Your task to perform on an android device: turn off notifications settings in the gmail app Image 0: 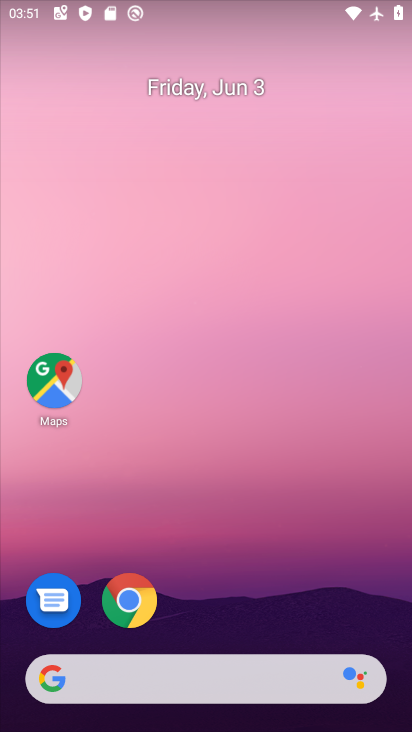
Step 0: click (129, 612)
Your task to perform on an android device: turn off notifications settings in the gmail app Image 1: 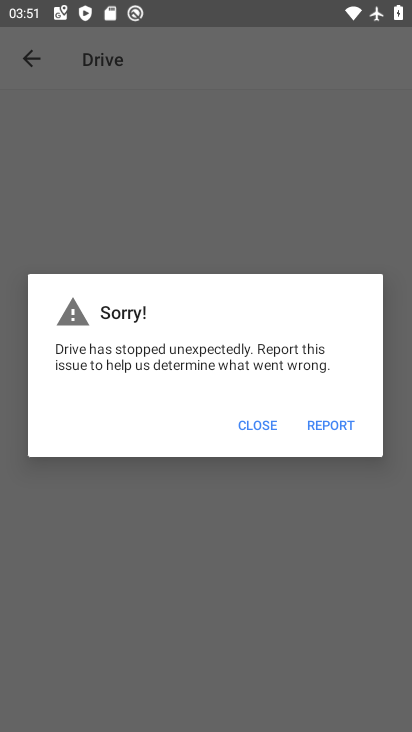
Step 1: press home button
Your task to perform on an android device: turn off notifications settings in the gmail app Image 2: 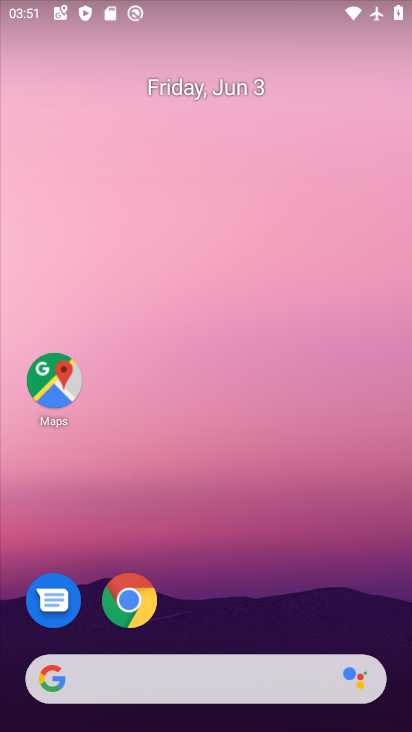
Step 2: drag from (227, 528) to (259, 1)
Your task to perform on an android device: turn off notifications settings in the gmail app Image 3: 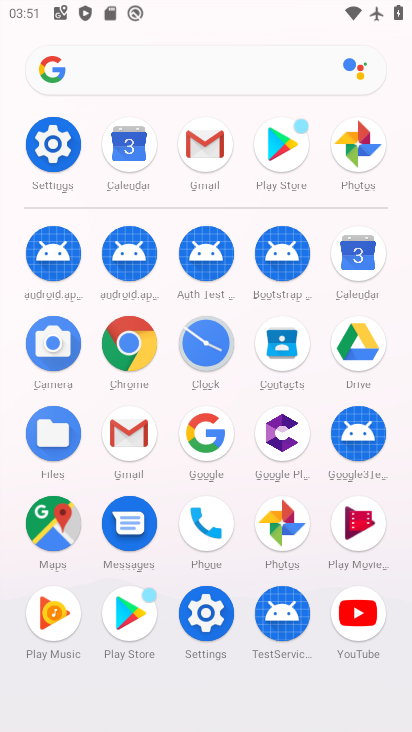
Step 3: click (122, 433)
Your task to perform on an android device: turn off notifications settings in the gmail app Image 4: 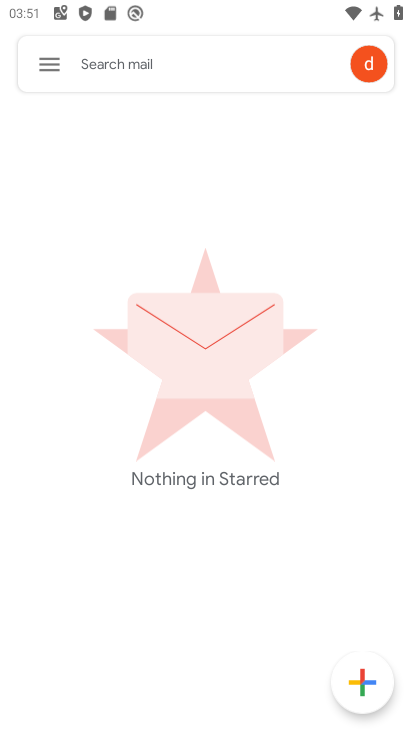
Step 4: click (62, 77)
Your task to perform on an android device: turn off notifications settings in the gmail app Image 5: 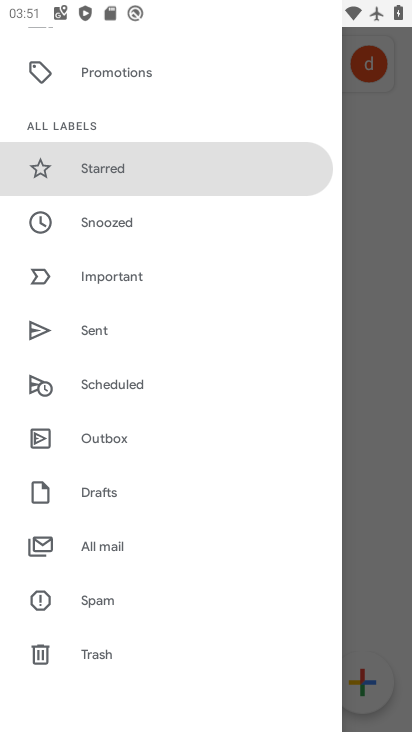
Step 5: drag from (101, 626) to (182, 170)
Your task to perform on an android device: turn off notifications settings in the gmail app Image 6: 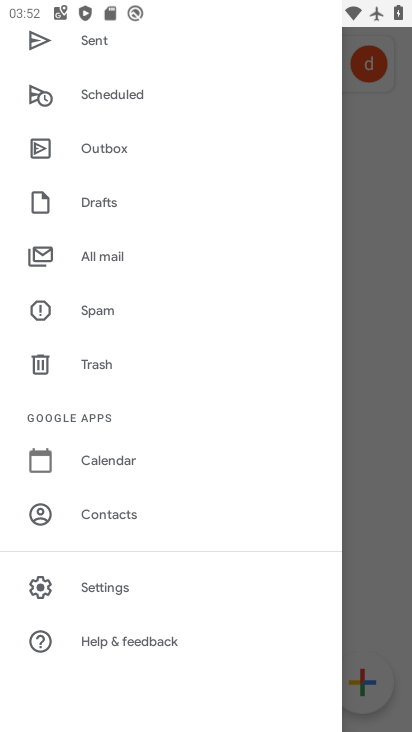
Step 6: click (126, 596)
Your task to perform on an android device: turn off notifications settings in the gmail app Image 7: 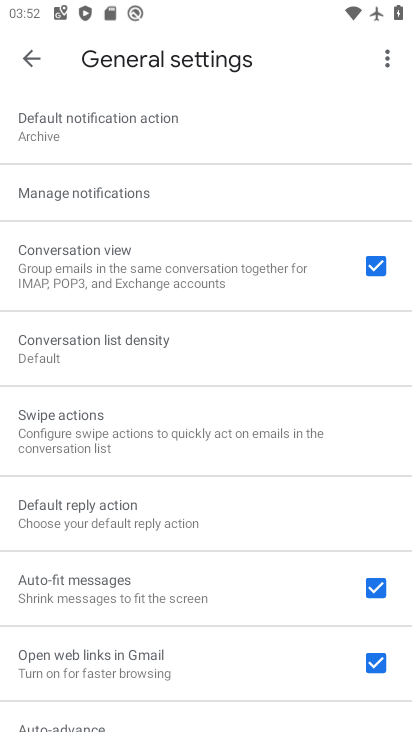
Step 7: click (93, 187)
Your task to perform on an android device: turn off notifications settings in the gmail app Image 8: 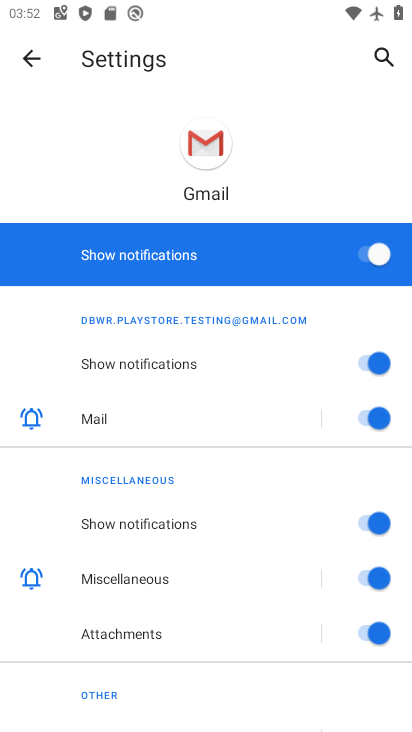
Step 8: click (341, 269)
Your task to perform on an android device: turn off notifications settings in the gmail app Image 9: 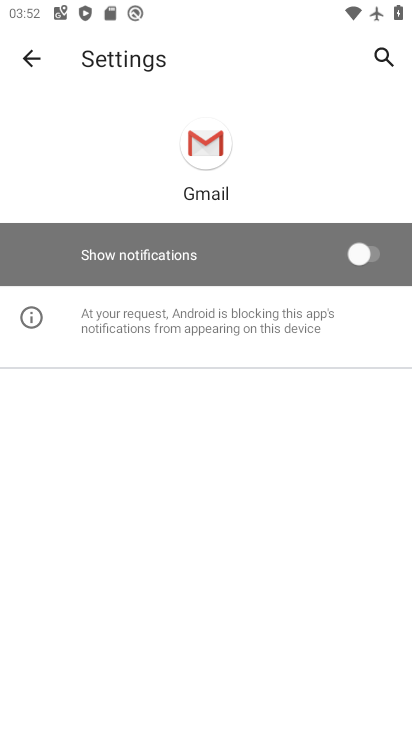
Step 9: task complete